Your task to perform on an android device: Add "razer kraken" to the cart on target.com Image 0: 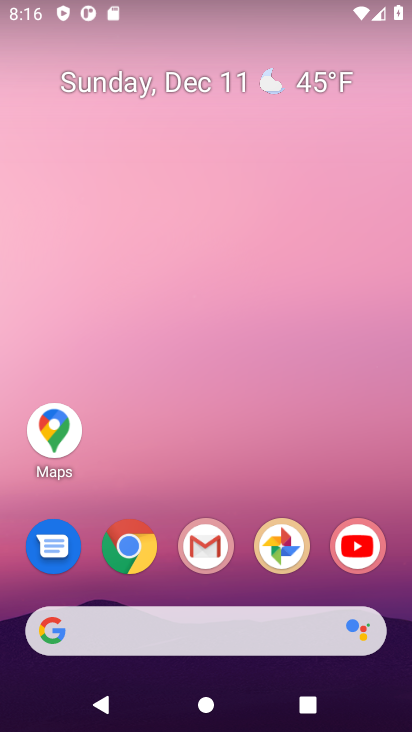
Step 0: click (133, 545)
Your task to perform on an android device: Add "razer kraken" to the cart on target.com Image 1: 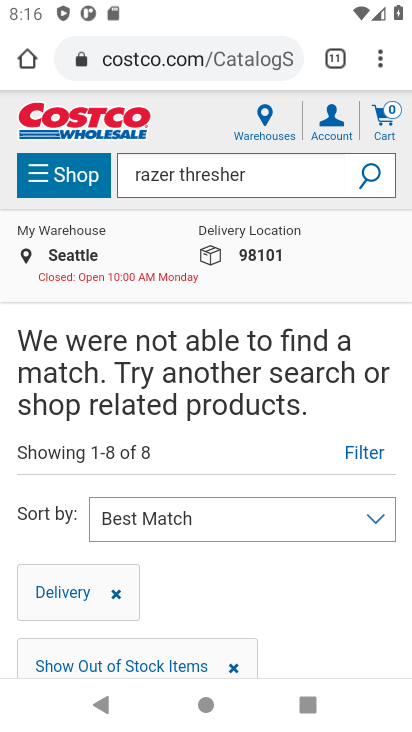
Step 1: click (168, 58)
Your task to perform on an android device: Add "razer kraken" to the cart on target.com Image 2: 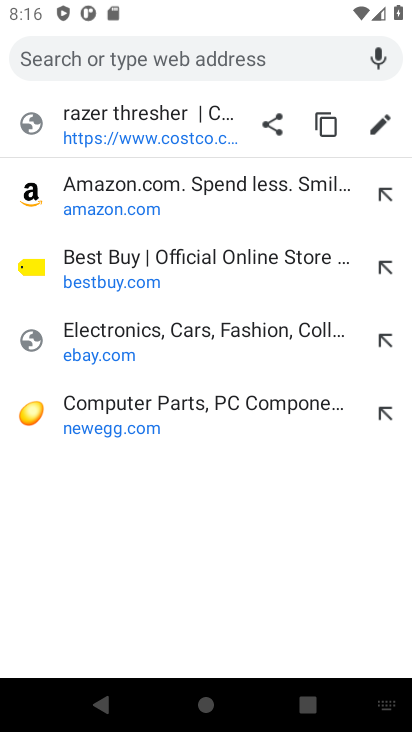
Step 2: type "target.com"
Your task to perform on an android device: Add "razer kraken" to the cart on target.com Image 3: 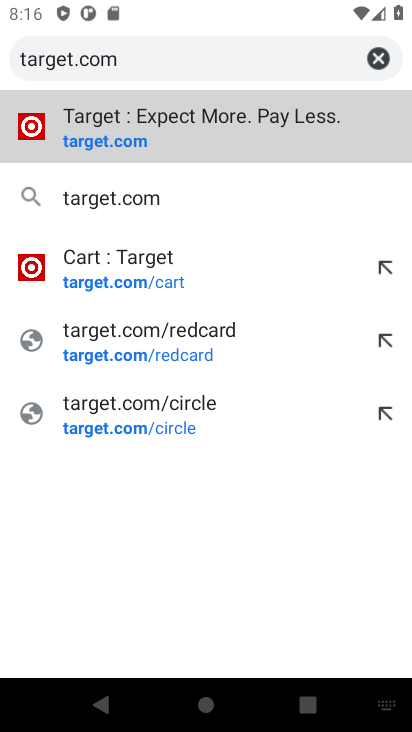
Step 3: click (106, 140)
Your task to perform on an android device: Add "razer kraken" to the cart on target.com Image 4: 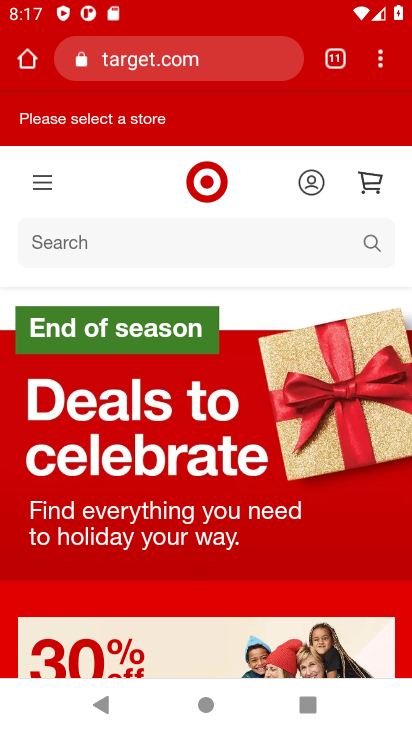
Step 4: click (73, 252)
Your task to perform on an android device: Add "razer kraken" to the cart on target.com Image 5: 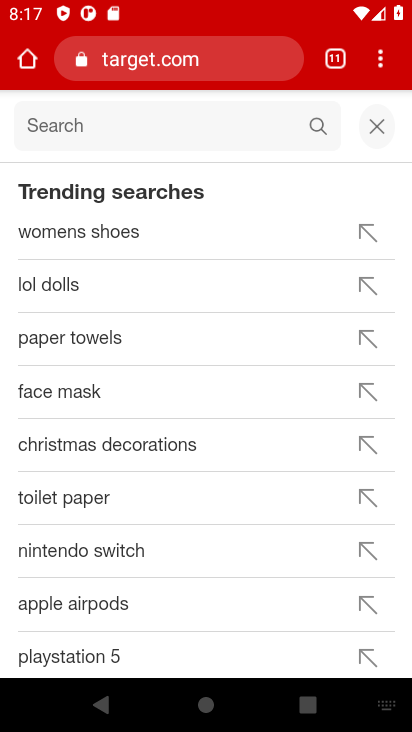
Step 5: type "razer kraken"
Your task to perform on an android device: Add "razer kraken" to the cart on target.com Image 6: 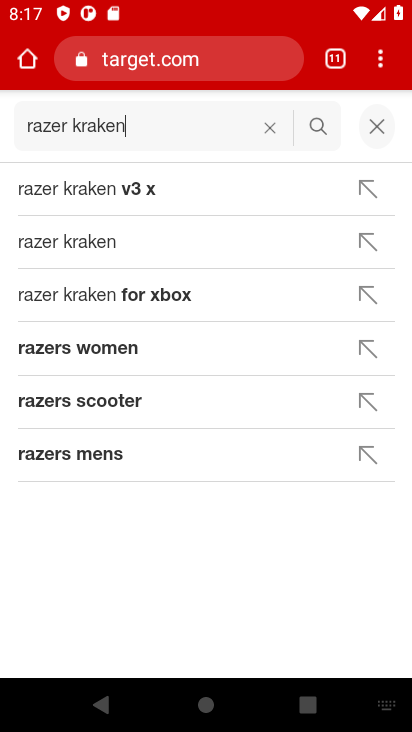
Step 6: click (79, 243)
Your task to perform on an android device: Add "razer kraken" to the cart on target.com Image 7: 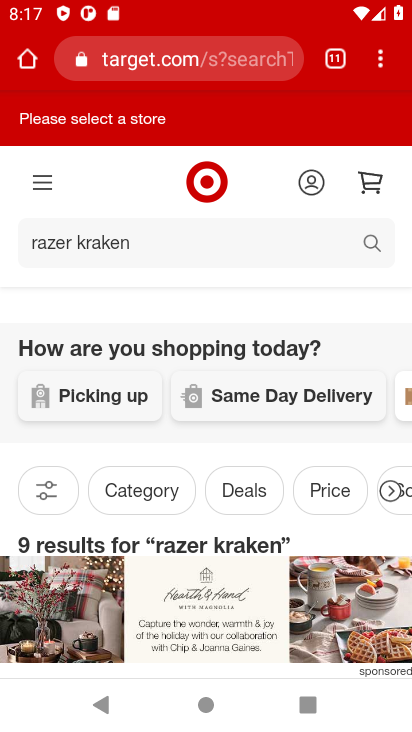
Step 7: drag from (194, 530) to (202, 186)
Your task to perform on an android device: Add "razer kraken" to the cart on target.com Image 8: 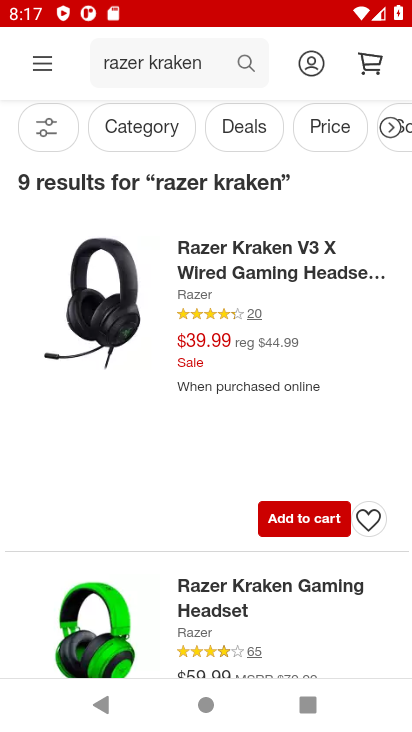
Step 8: click (300, 524)
Your task to perform on an android device: Add "razer kraken" to the cart on target.com Image 9: 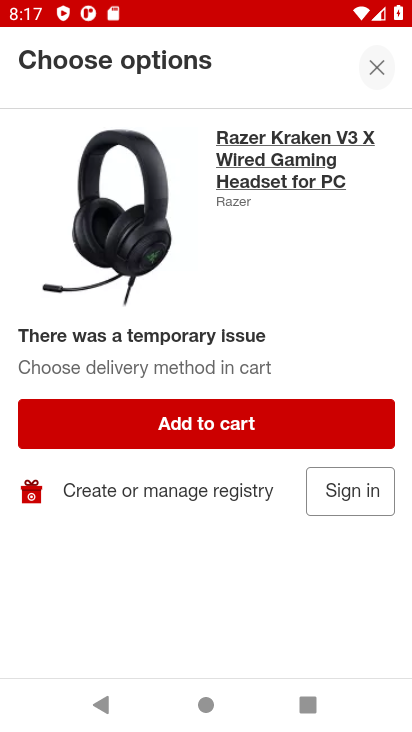
Step 9: click (172, 426)
Your task to perform on an android device: Add "razer kraken" to the cart on target.com Image 10: 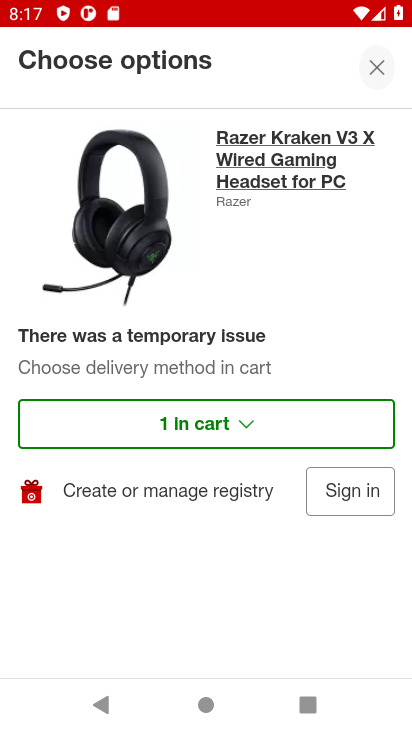
Step 10: task complete